Your task to perform on an android device: Open Google Maps Image 0: 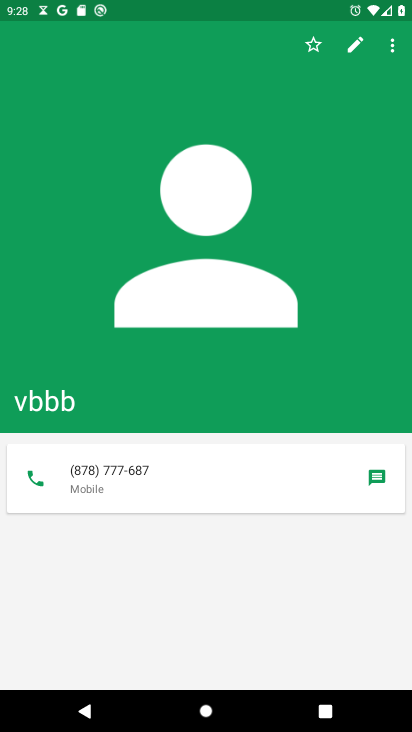
Step 0: press home button
Your task to perform on an android device: Open Google Maps Image 1: 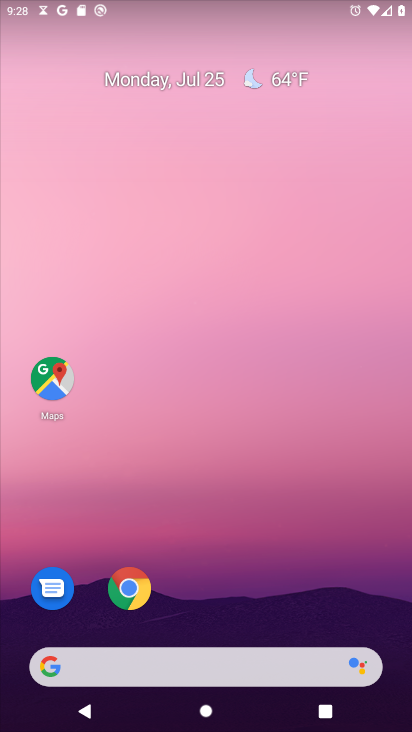
Step 1: click (50, 382)
Your task to perform on an android device: Open Google Maps Image 2: 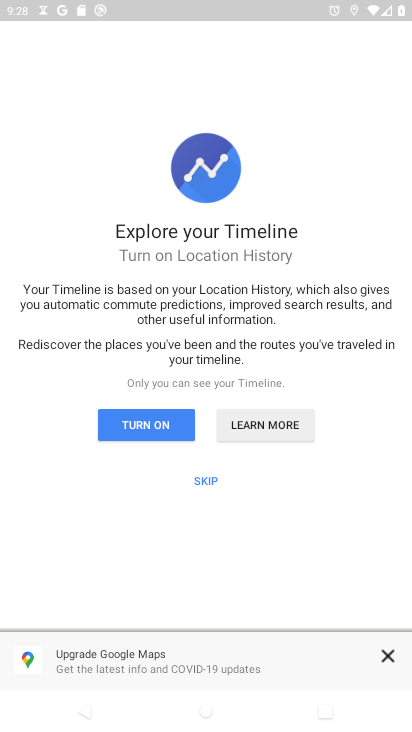
Step 2: press home button
Your task to perform on an android device: Open Google Maps Image 3: 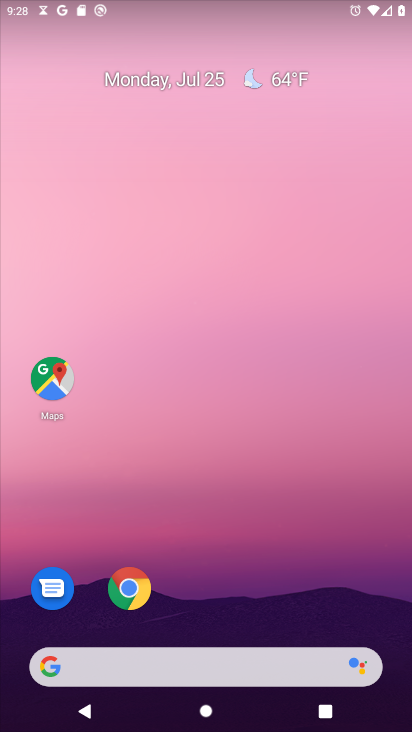
Step 3: click (65, 380)
Your task to perform on an android device: Open Google Maps Image 4: 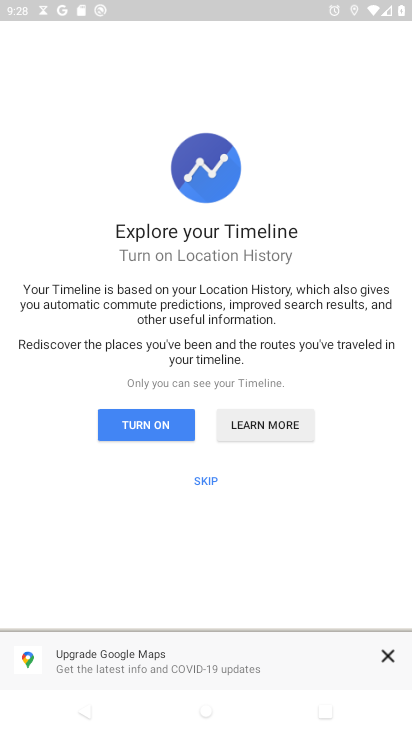
Step 4: task complete